Your task to perform on an android device: clear history in the chrome app Image 0: 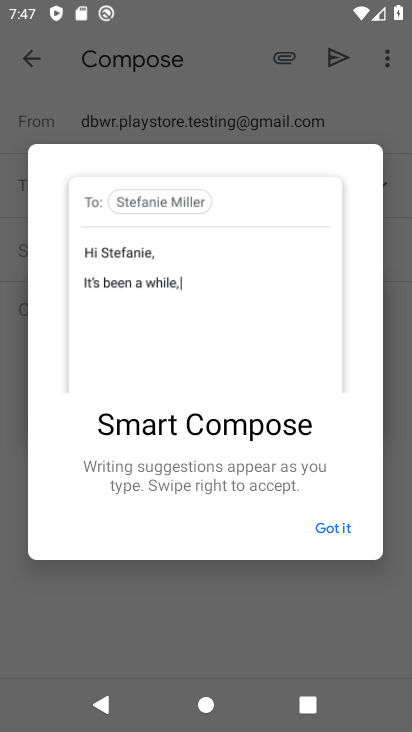
Step 0: press home button
Your task to perform on an android device: clear history in the chrome app Image 1: 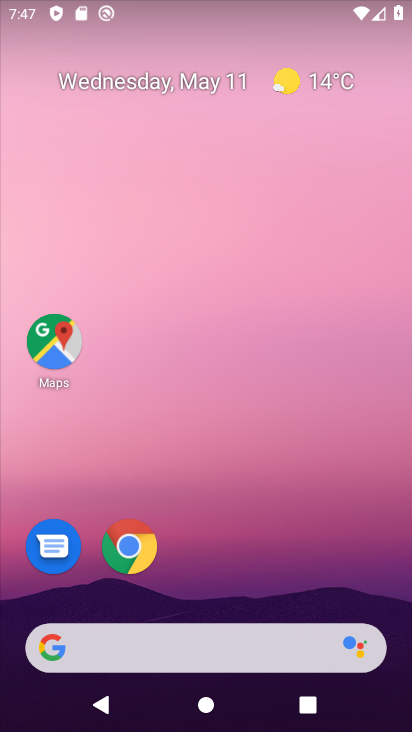
Step 1: click (131, 548)
Your task to perform on an android device: clear history in the chrome app Image 2: 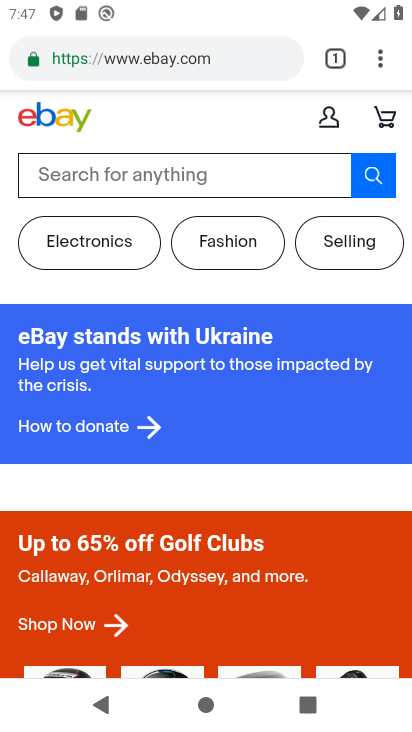
Step 2: click (383, 51)
Your task to perform on an android device: clear history in the chrome app Image 3: 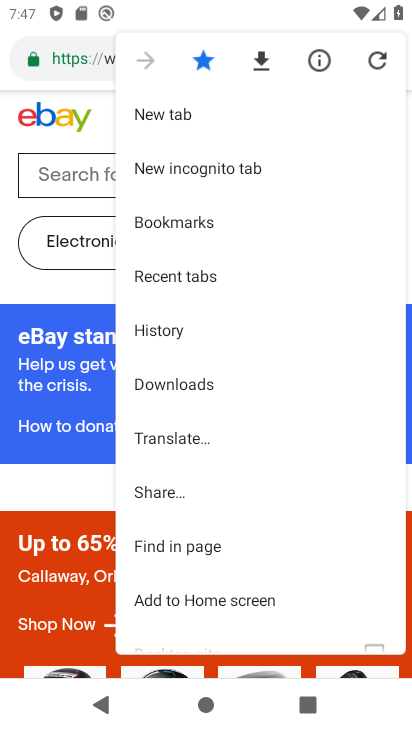
Step 3: click (172, 334)
Your task to perform on an android device: clear history in the chrome app Image 4: 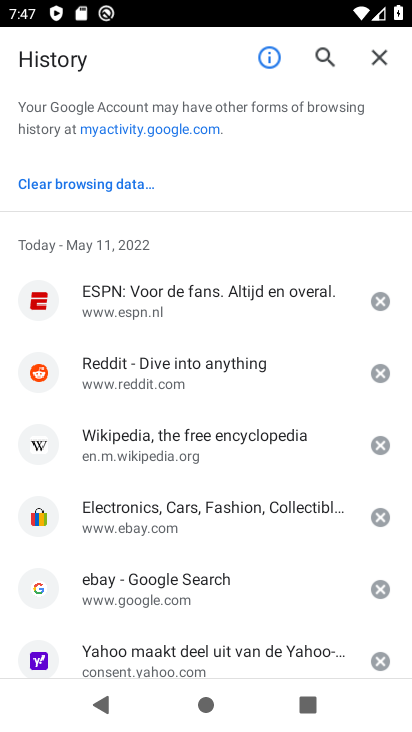
Step 4: click (128, 188)
Your task to perform on an android device: clear history in the chrome app Image 5: 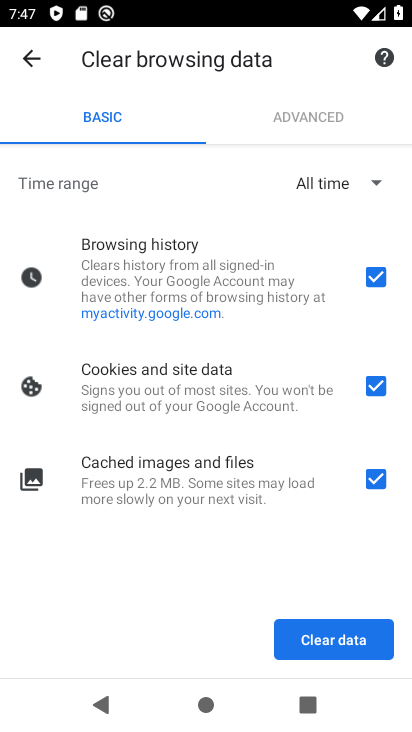
Step 5: click (352, 629)
Your task to perform on an android device: clear history in the chrome app Image 6: 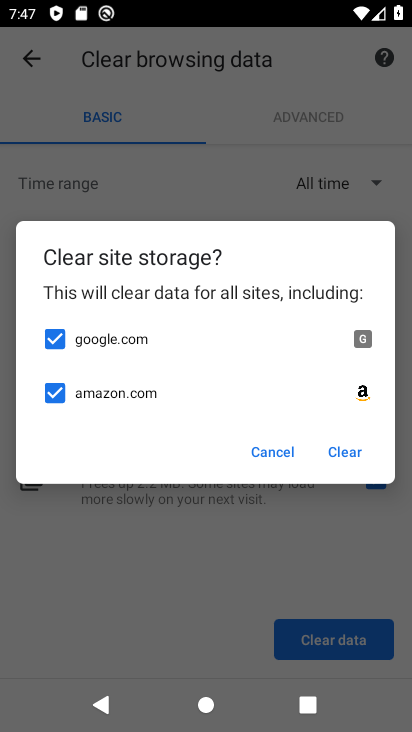
Step 6: click (343, 450)
Your task to perform on an android device: clear history in the chrome app Image 7: 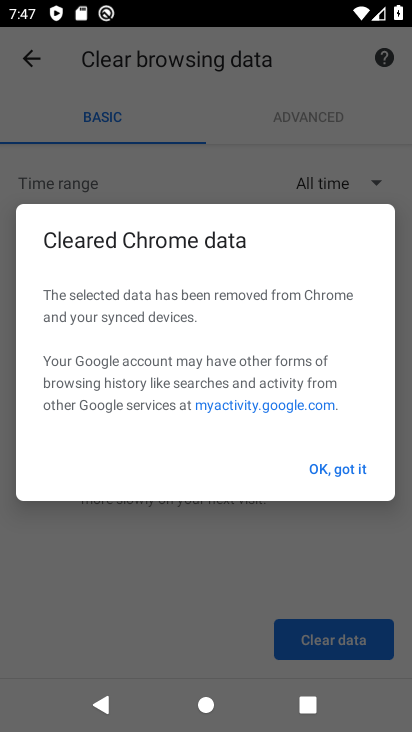
Step 7: task complete